Your task to perform on an android device: Show the shopping cart on bestbuy. Add acer nitro to the cart on bestbuy, then select checkout. Image 0: 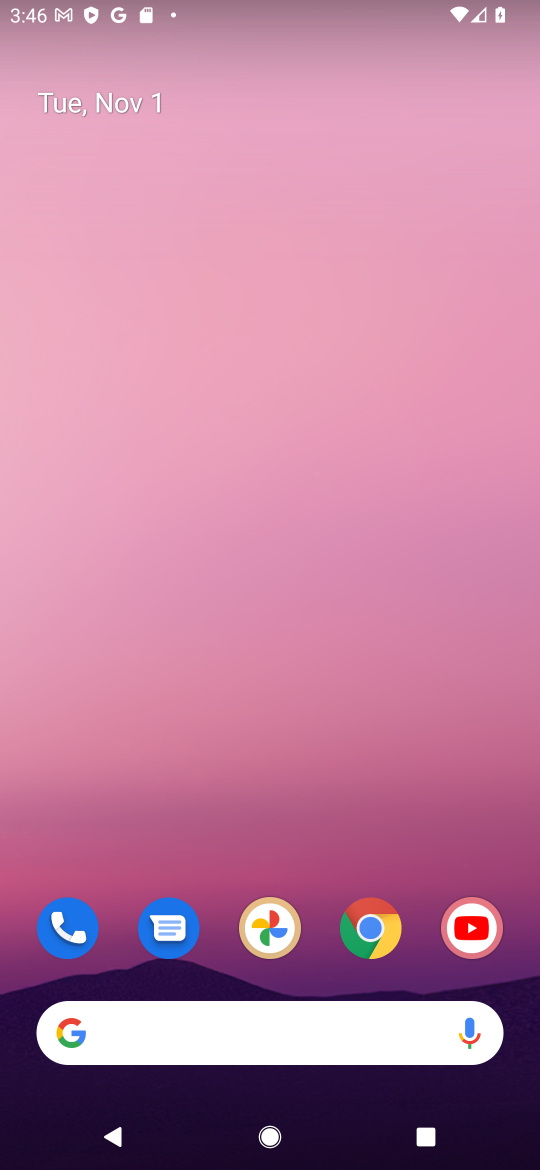
Step 0: click (386, 940)
Your task to perform on an android device: Show the shopping cart on bestbuy. Add acer nitro to the cart on bestbuy, then select checkout. Image 1: 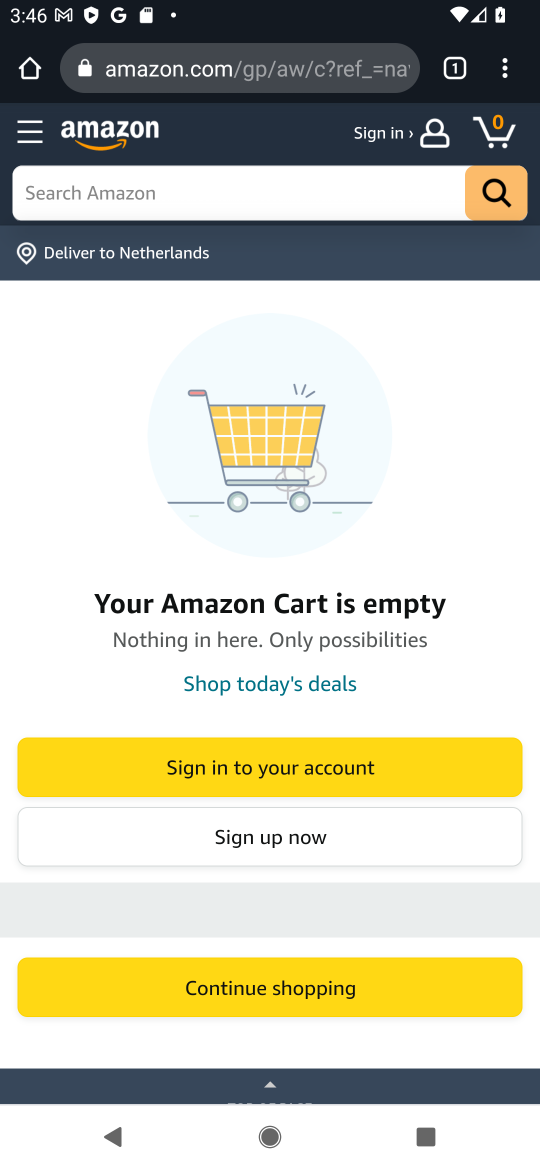
Step 1: click (234, 87)
Your task to perform on an android device: Show the shopping cart on bestbuy. Add acer nitro to the cart on bestbuy, then select checkout. Image 2: 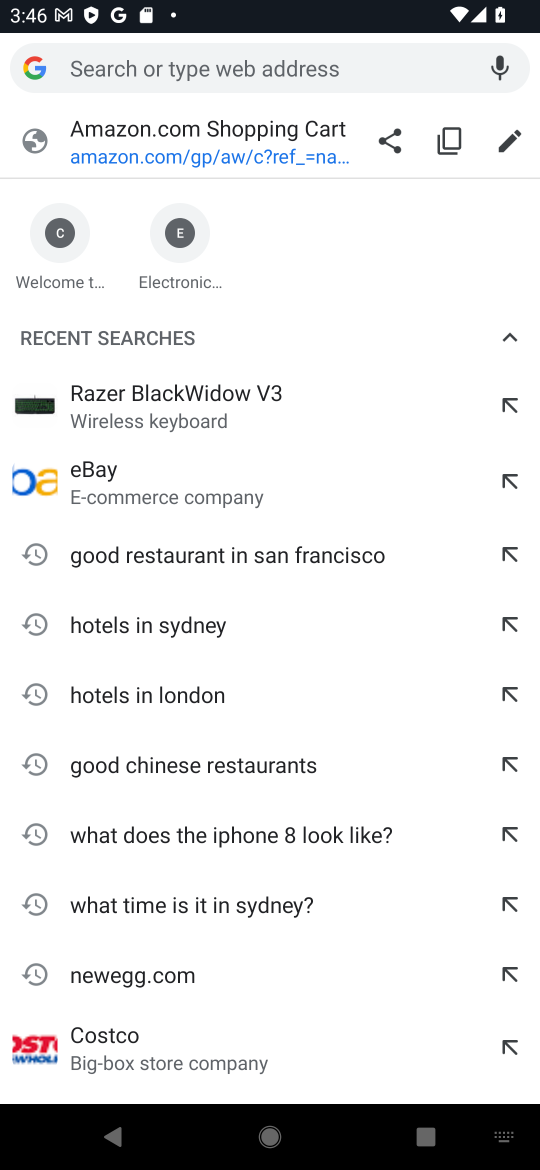
Step 2: type "bestbuy"
Your task to perform on an android device: Show the shopping cart on bestbuy. Add acer nitro to the cart on bestbuy, then select checkout. Image 3: 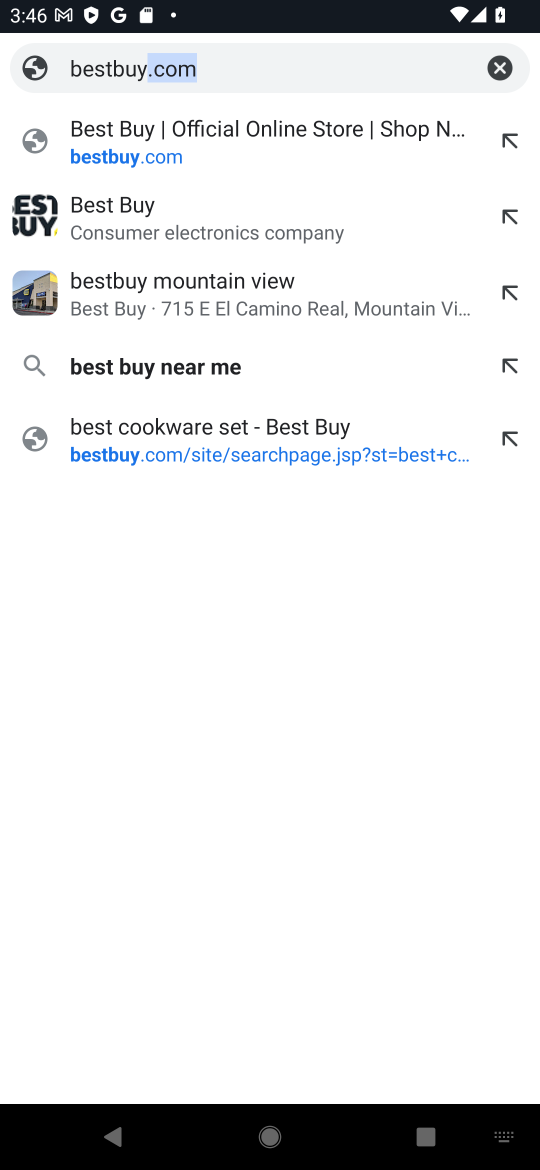
Step 3: press enter
Your task to perform on an android device: Show the shopping cart on bestbuy. Add acer nitro to the cart on bestbuy, then select checkout. Image 4: 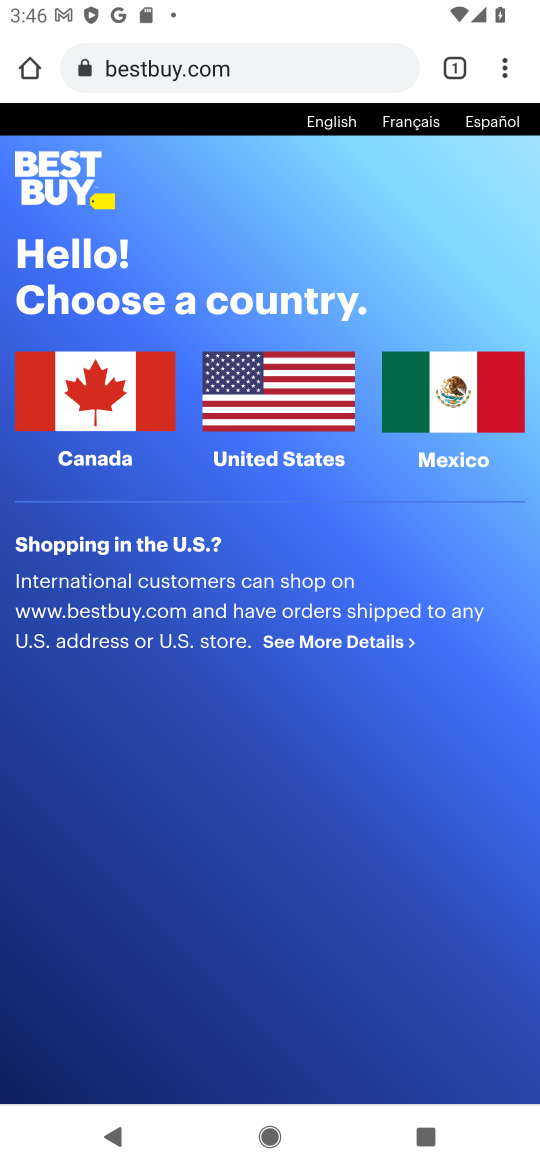
Step 4: click (282, 458)
Your task to perform on an android device: Show the shopping cart on bestbuy. Add acer nitro to the cart on bestbuy, then select checkout. Image 5: 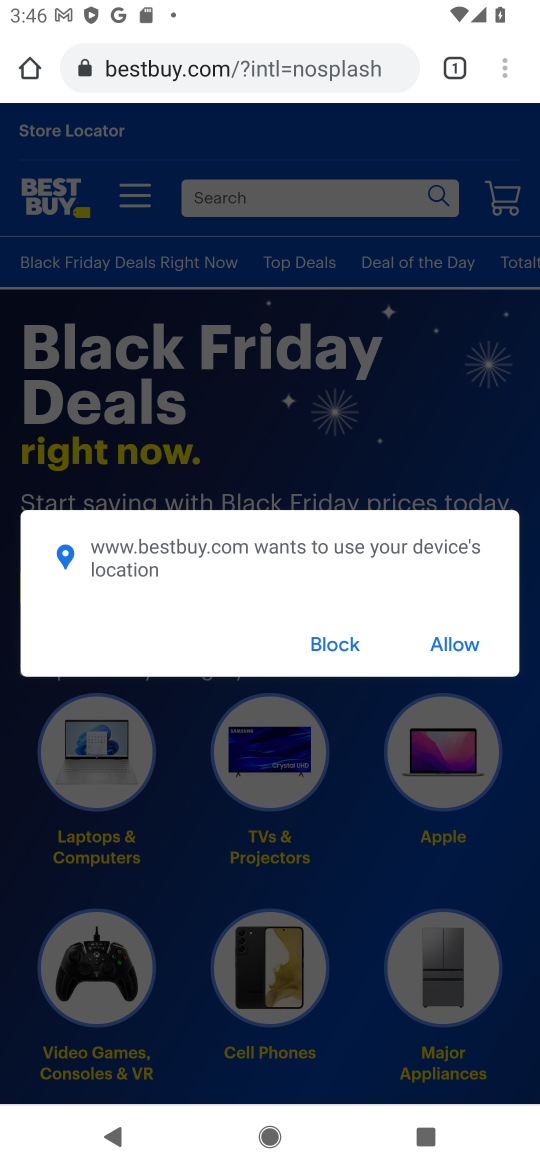
Step 5: click (437, 651)
Your task to perform on an android device: Show the shopping cart on bestbuy. Add acer nitro to the cart on bestbuy, then select checkout. Image 6: 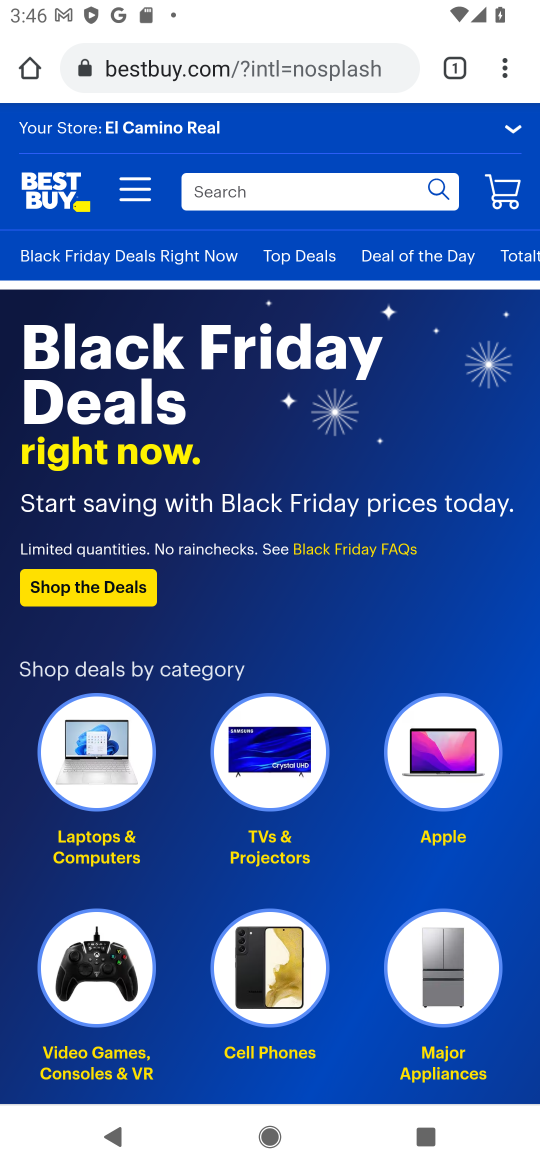
Step 6: click (501, 204)
Your task to perform on an android device: Show the shopping cart on bestbuy. Add acer nitro to the cart on bestbuy, then select checkout. Image 7: 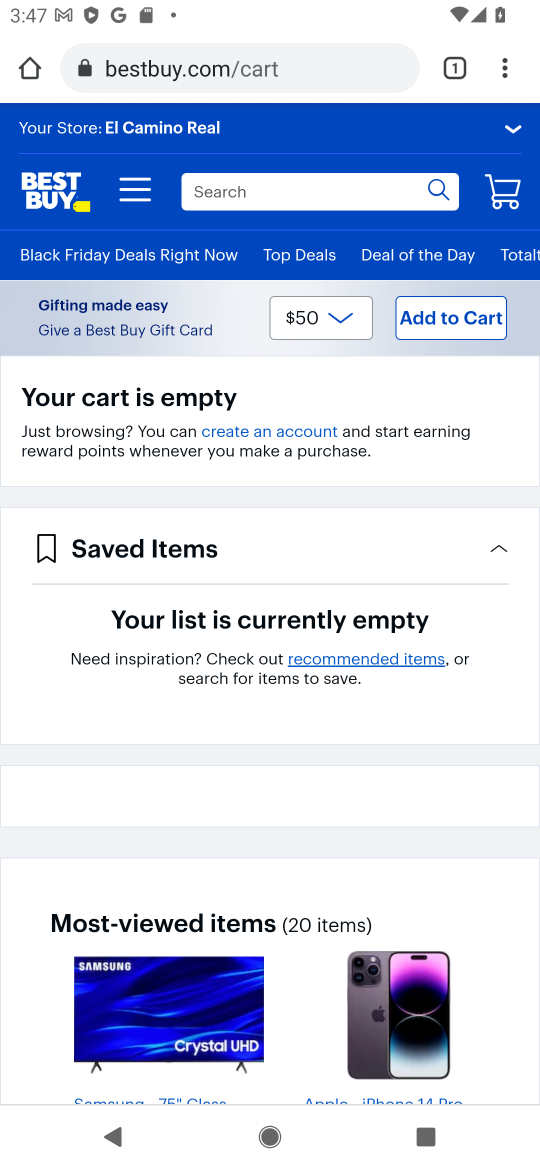
Step 7: click (324, 197)
Your task to perform on an android device: Show the shopping cart on bestbuy. Add acer nitro to the cart on bestbuy, then select checkout. Image 8: 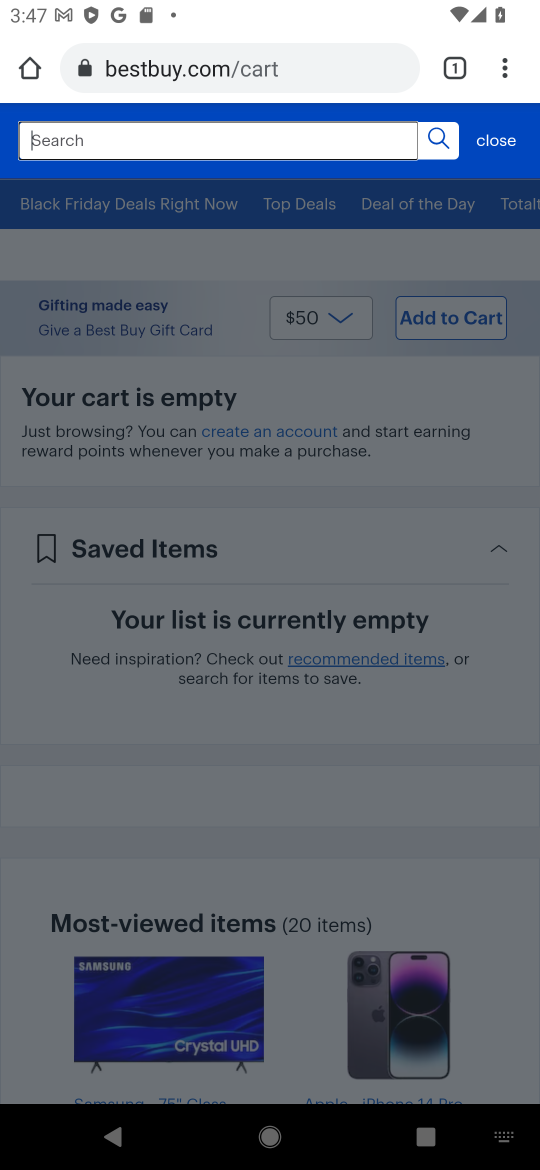
Step 8: type "acer nitro"
Your task to perform on an android device: Show the shopping cart on bestbuy. Add acer nitro to the cart on bestbuy, then select checkout. Image 9: 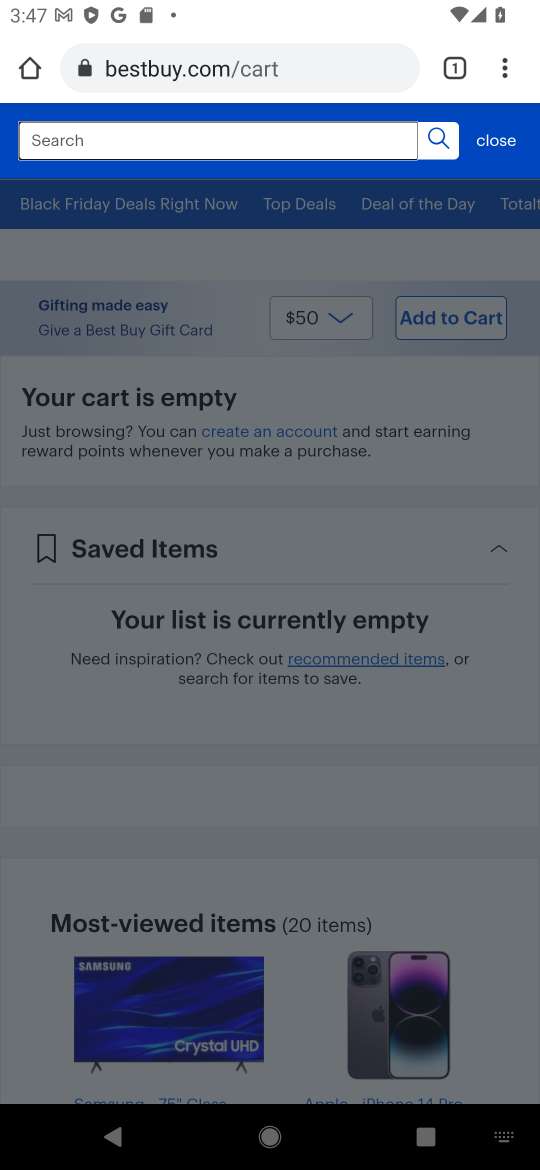
Step 9: type ""
Your task to perform on an android device: Show the shopping cart on bestbuy. Add acer nitro to the cart on bestbuy, then select checkout. Image 10: 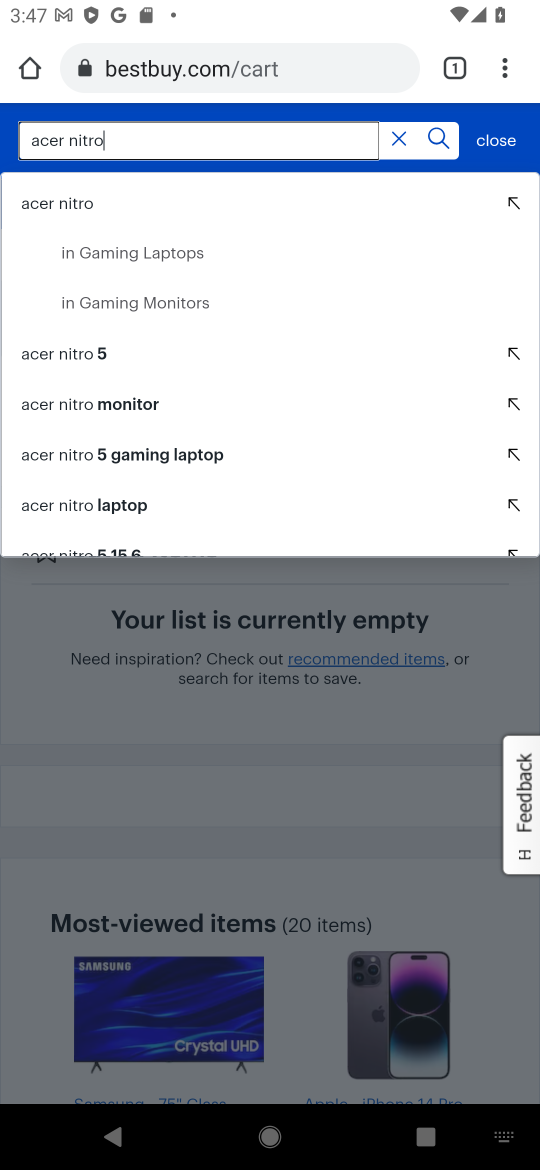
Step 10: press enter
Your task to perform on an android device: Show the shopping cart on bestbuy. Add acer nitro to the cart on bestbuy, then select checkout. Image 11: 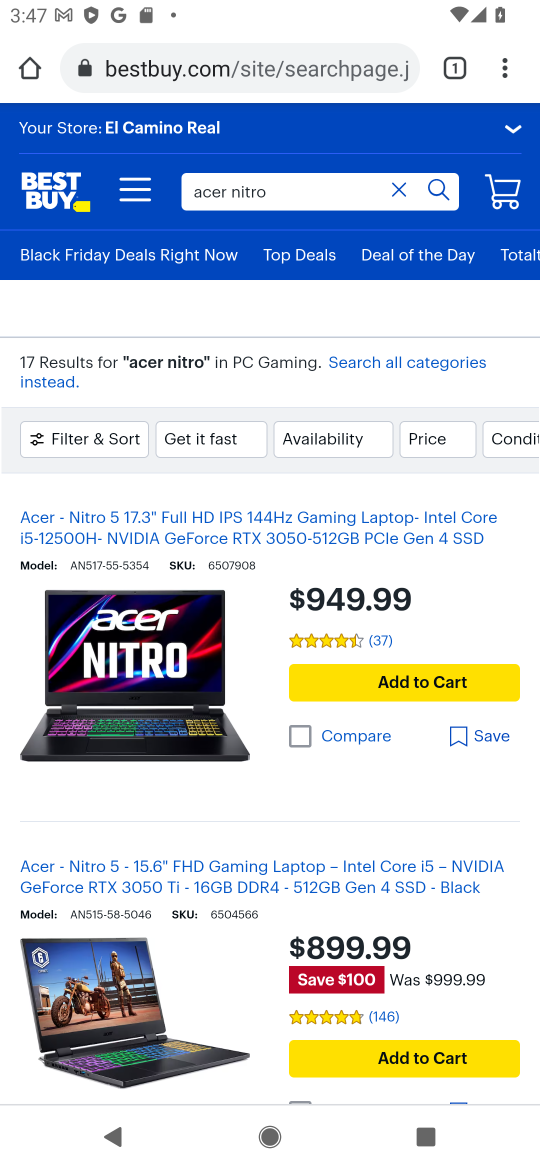
Step 11: click (134, 546)
Your task to perform on an android device: Show the shopping cart on bestbuy. Add acer nitro to the cart on bestbuy, then select checkout. Image 12: 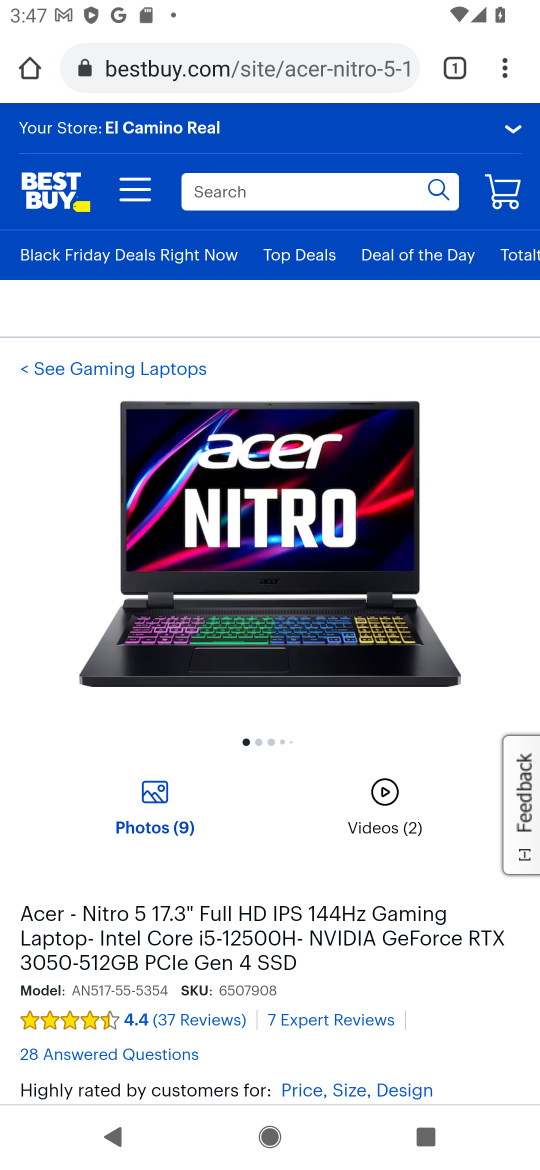
Step 12: drag from (302, 1021) to (280, 204)
Your task to perform on an android device: Show the shopping cart on bestbuy. Add acer nitro to the cart on bestbuy, then select checkout. Image 13: 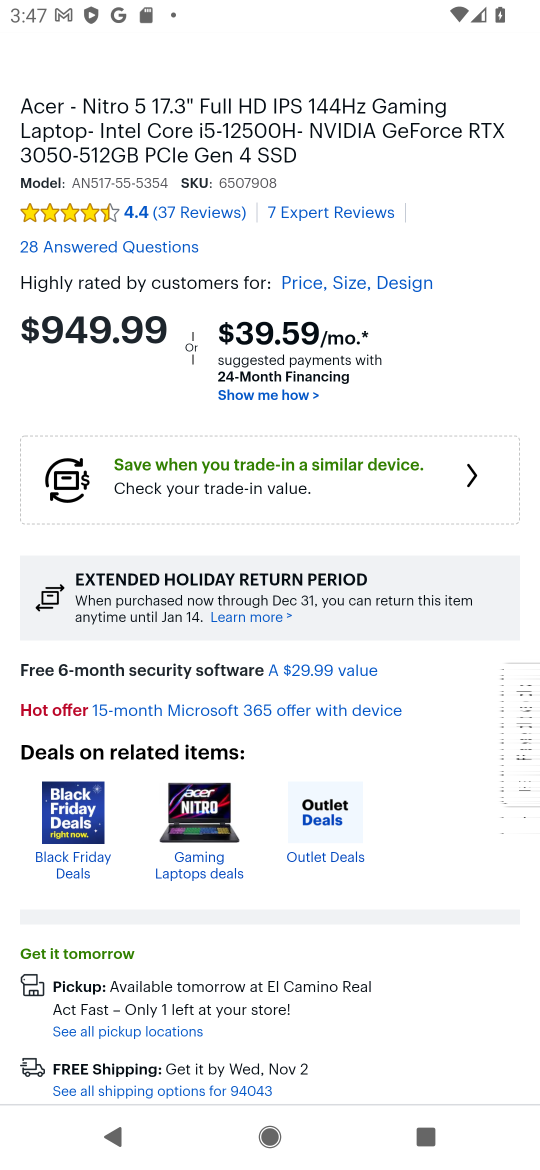
Step 13: drag from (315, 970) to (319, 580)
Your task to perform on an android device: Show the shopping cart on bestbuy. Add acer nitro to the cart on bestbuy, then select checkout. Image 14: 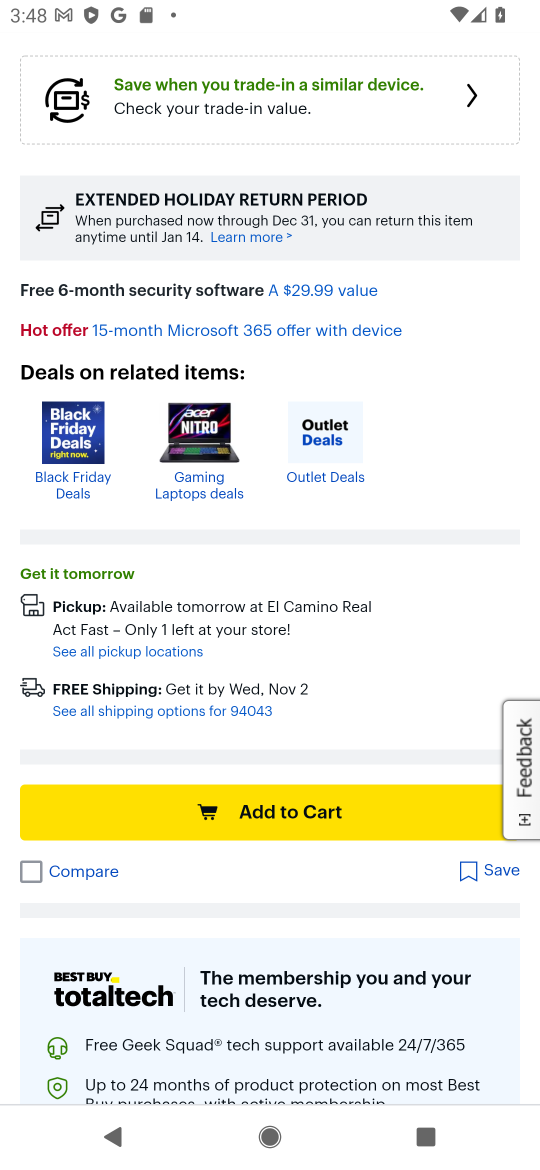
Step 14: click (329, 807)
Your task to perform on an android device: Show the shopping cart on bestbuy. Add acer nitro to the cart on bestbuy, then select checkout. Image 15: 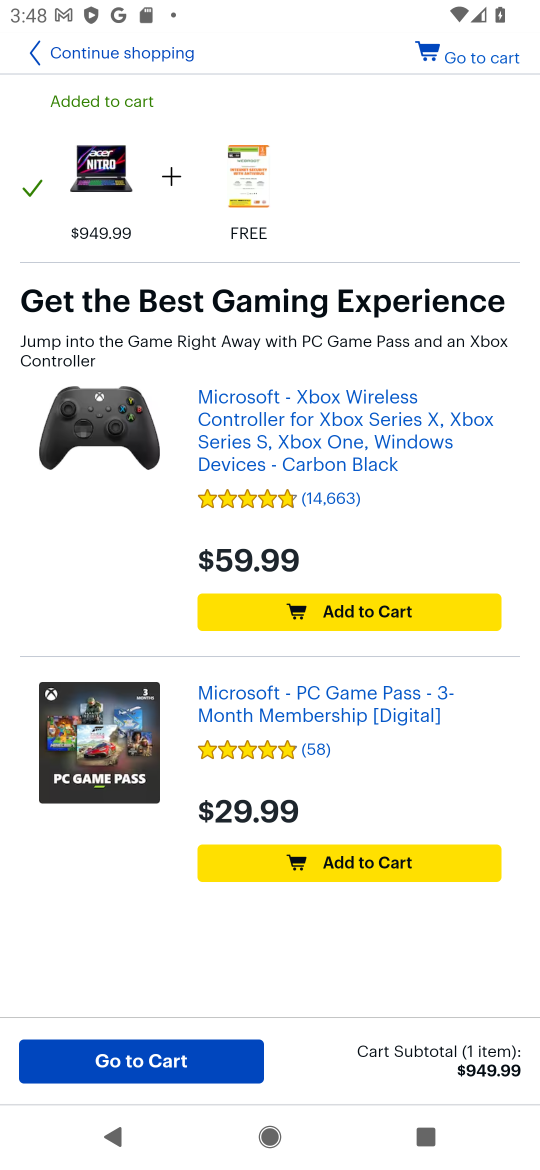
Step 15: click (221, 1060)
Your task to perform on an android device: Show the shopping cart on bestbuy. Add acer nitro to the cart on bestbuy, then select checkout. Image 16: 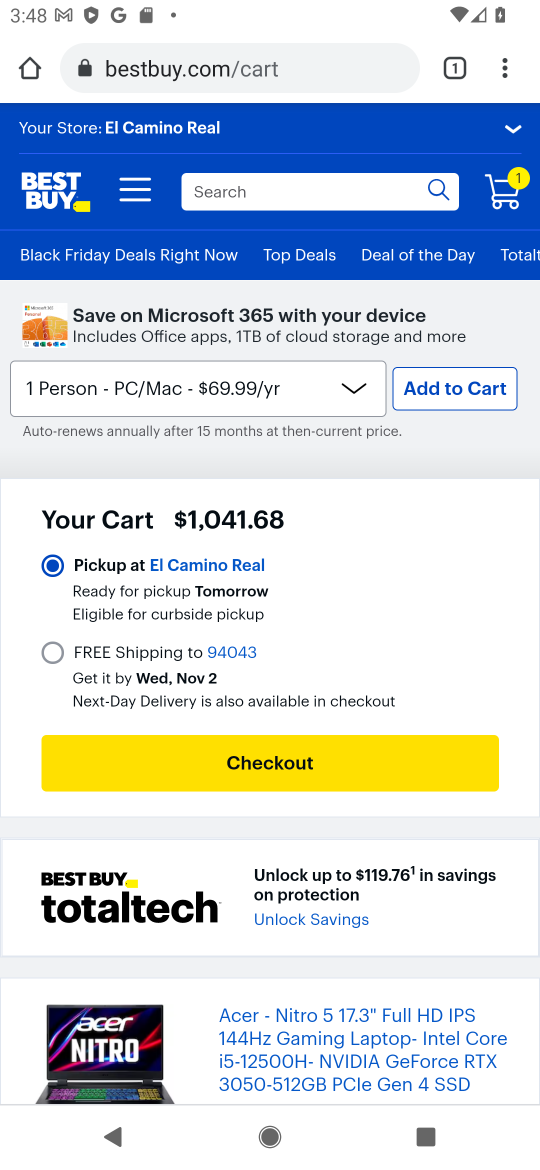
Step 16: click (231, 778)
Your task to perform on an android device: Show the shopping cart on bestbuy. Add acer nitro to the cart on bestbuy, then select checkout. Image 17: 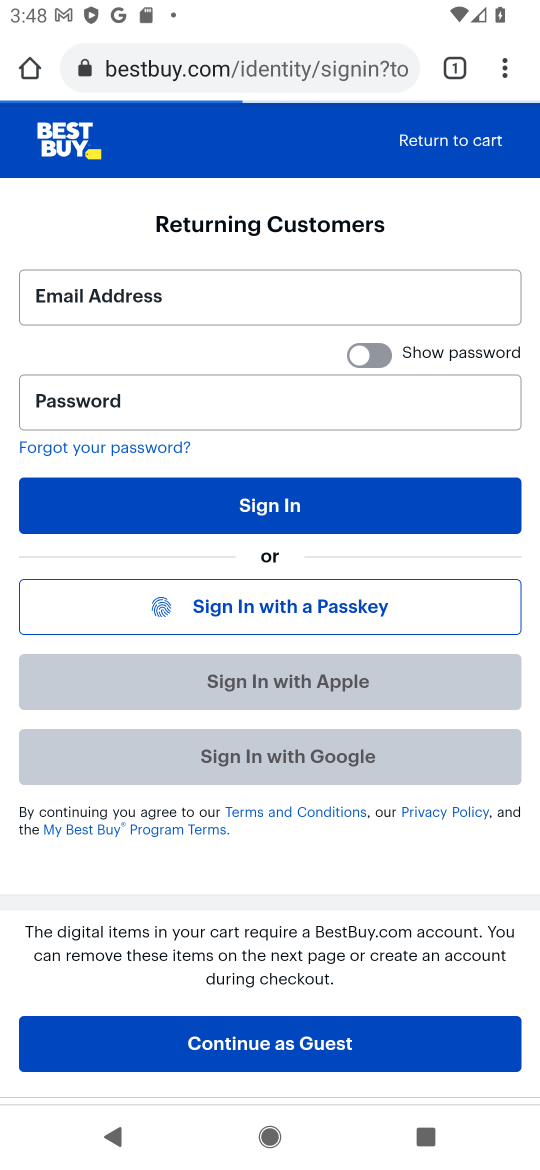
Step 17: task complete